Your task to perform on an android device: Empty the shopping cart on walmart.com. Add "razer huntsman" to the cart on walmart.com Image 0: 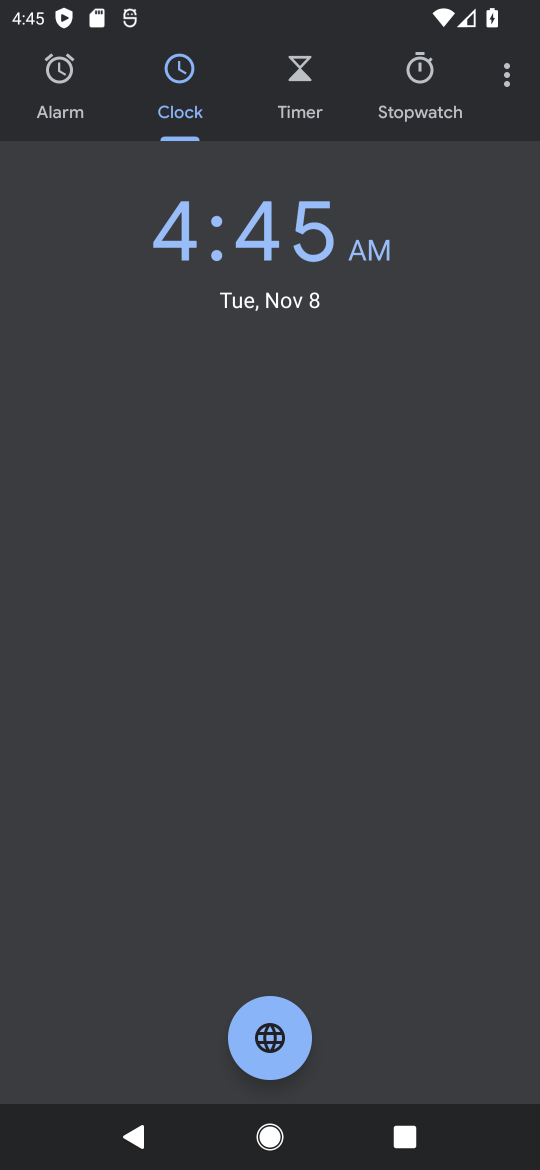
Step 0: press home button
Your task to perform on an android device: Empty the shopping cart on walmart.com. Add "razer huntsman" to the cart on walmart.com Image 1: 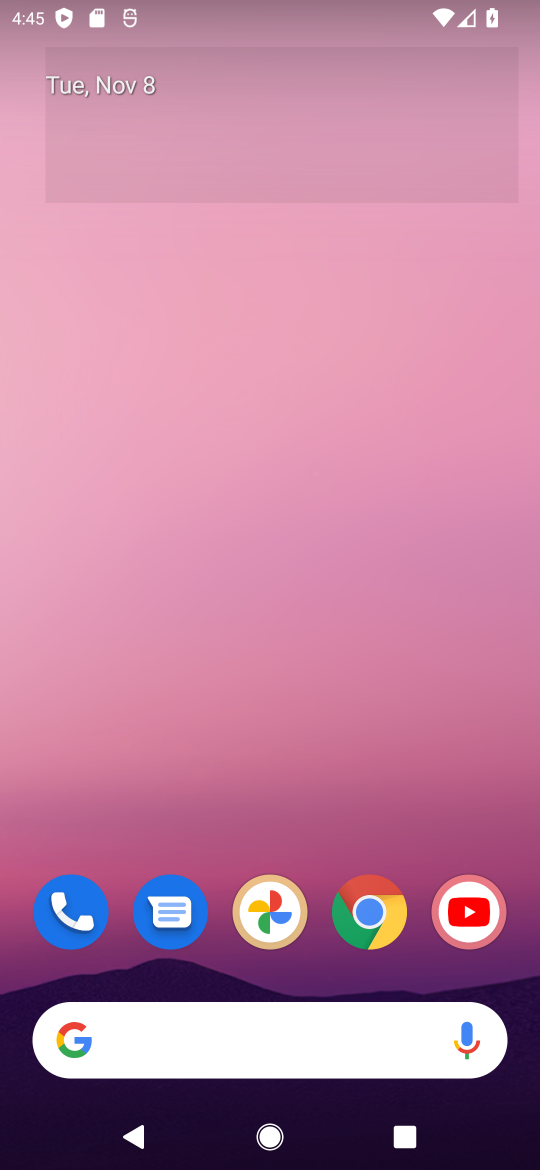
Step 1: click (364, 906)
Your task to perform on an android device: Empty the shopping cart on walmart.com. Add "razer huntsman" to the cart on walmart.com Image 2: 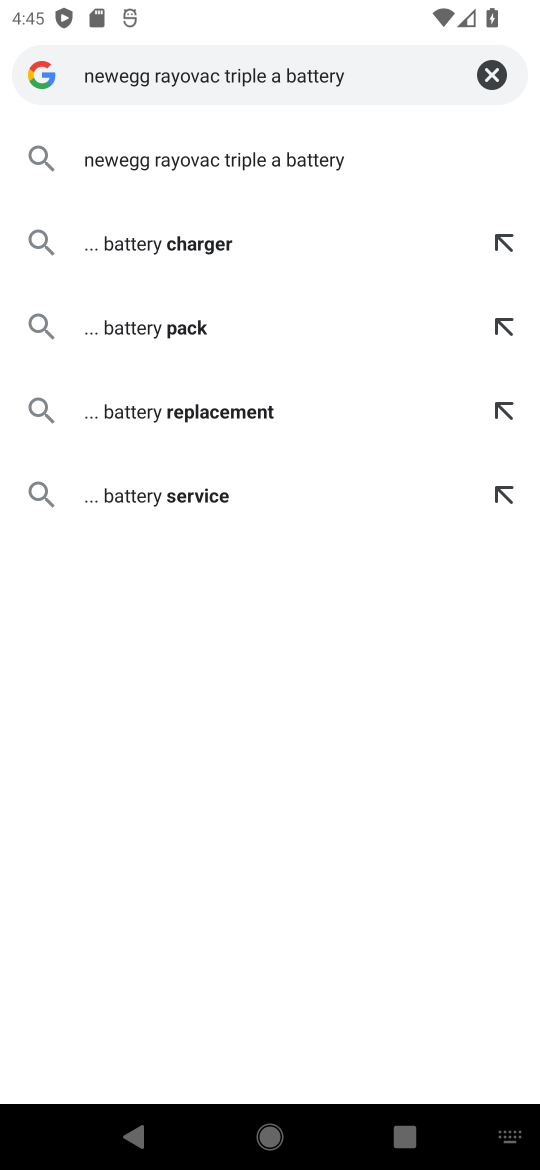
Step 2: click (489, 81)
Your task to perform on an android device: Empty the shopping cart on walmart.com. Add "razer huntsman" to the cart on walmart.com Image 3: 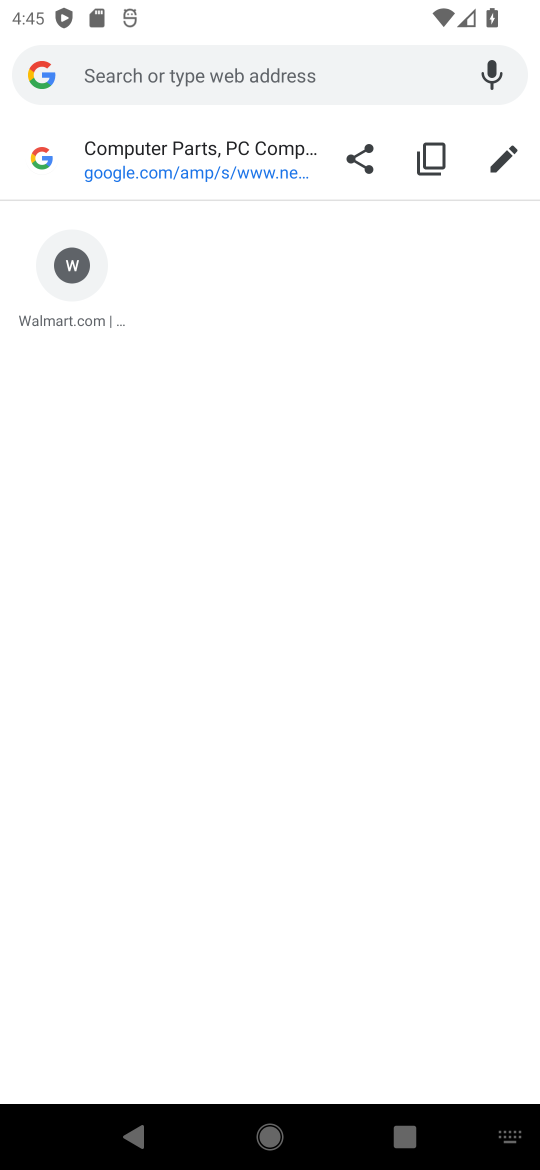
Step 3: click (70, 284)
Your task to perform on an android device: Empty the shopping cart on walmart.com. Add "razer huntsman" to the cart on walmart.com Image 4: 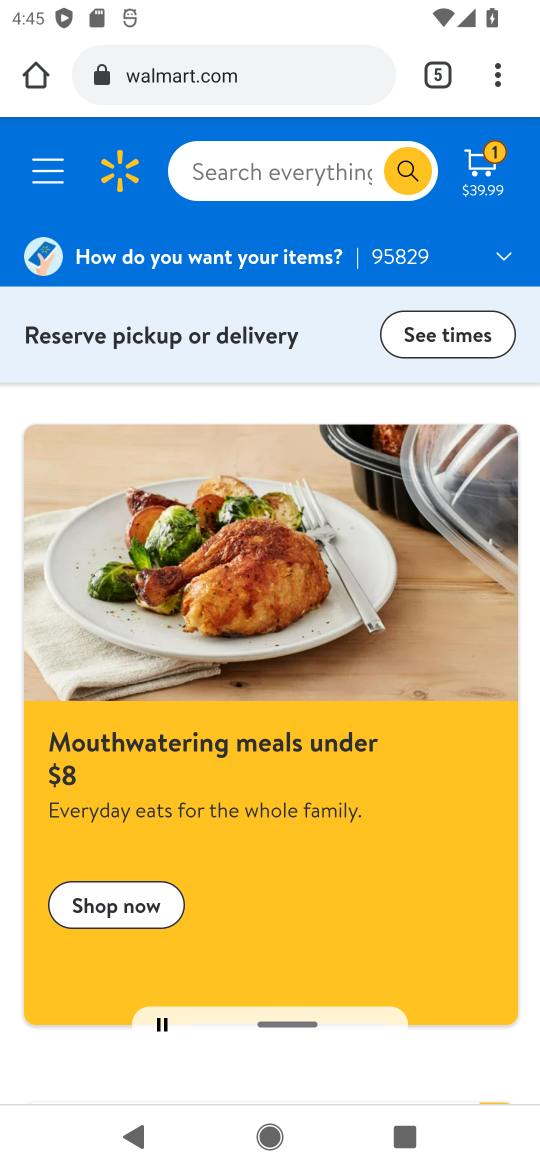
Step 4: click (258, 167)
Your task to perform on an android device: Empty the shopping cart on walmart.com. Add "razer huntsman" to the cart on walmart.com Image 5: 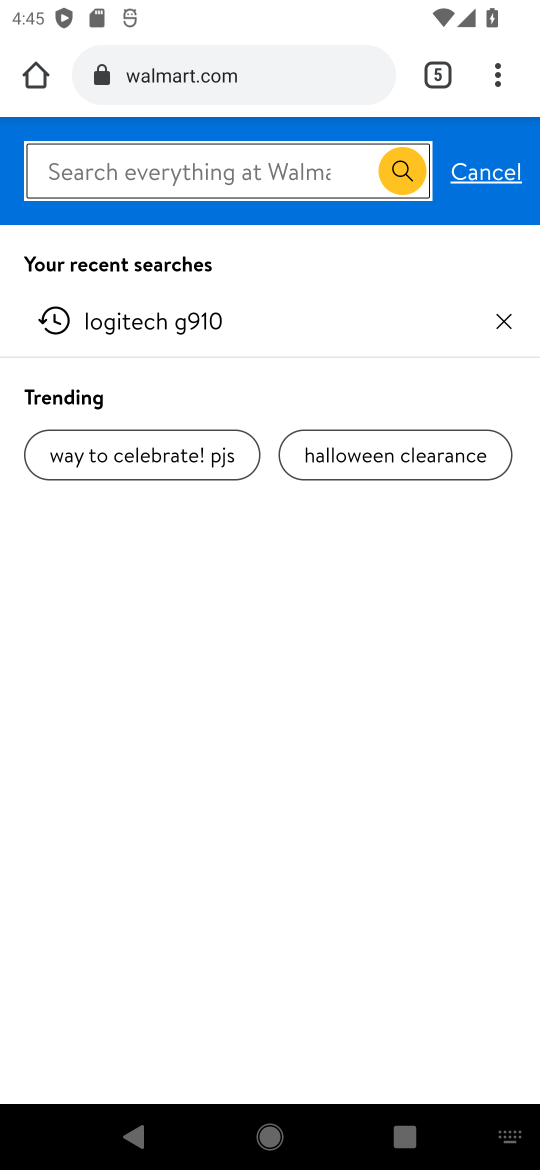
Step 5: type "razer huntsman"
Your task to perform on an android device: Empty the shopping cart on walmart.com. Add "razer huntsman" to the cart on walmart.com Image 6: 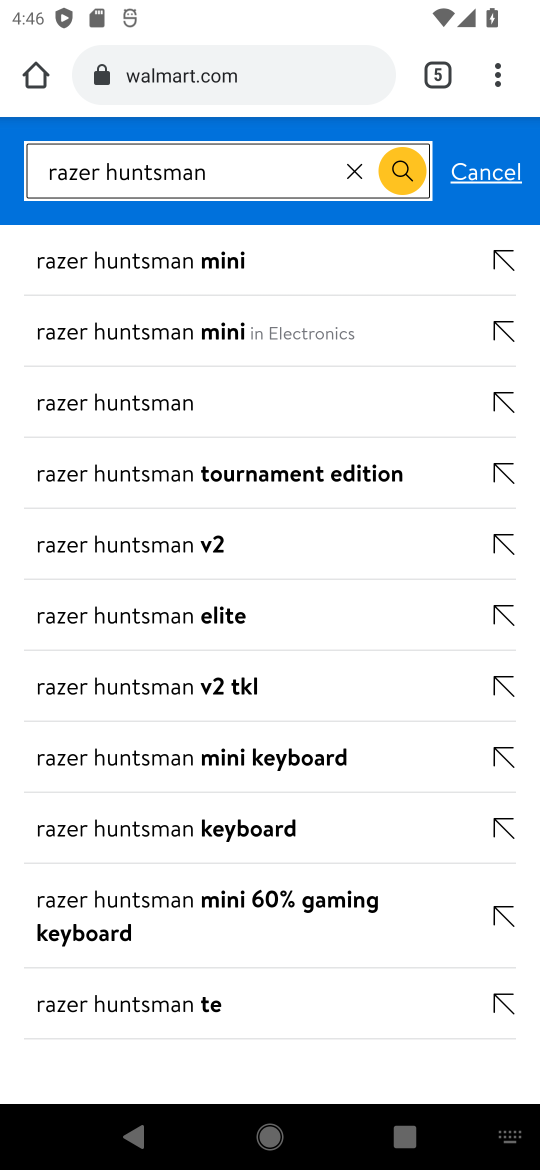
Step 6: click (132, 334)
Your task to perform on an android device: Empty the shopping cart on walmart.com. Add "razer huntsman" to the cart on walmart.com Image 7: 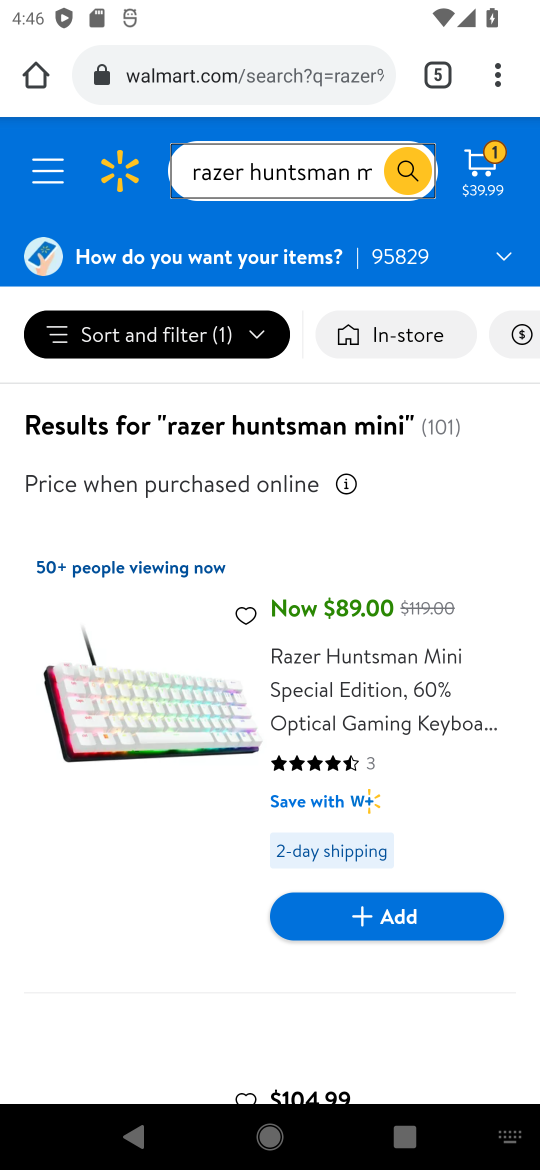
Step 7: click (395, 918)
Your task to perform on an android device: Empty the shopping cart on walmart.com. Add "razer huntsman" to the cart on walmart.com Image 8: 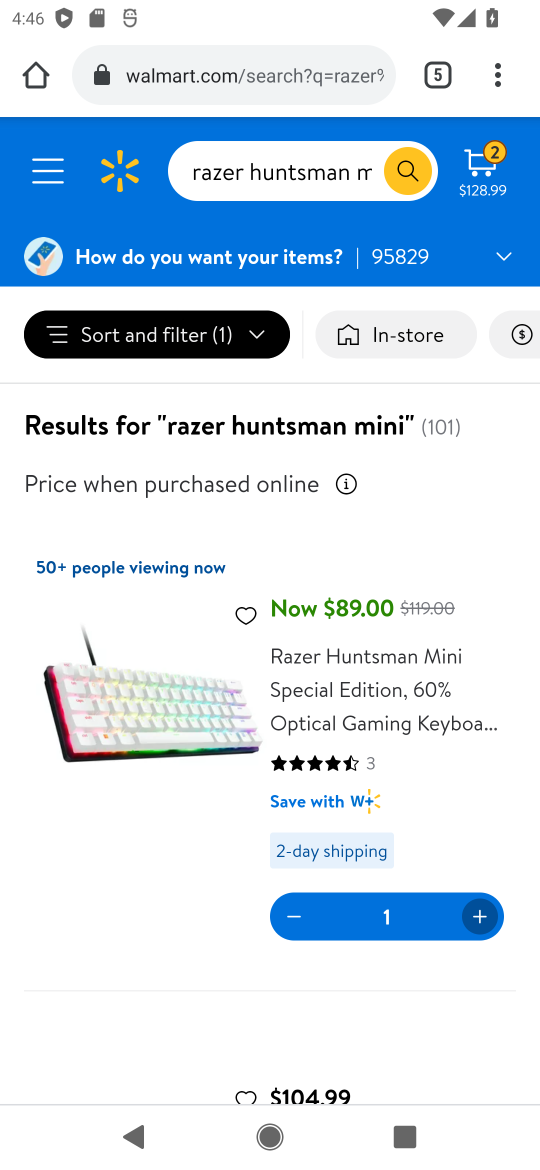
Step 8: task complete